Your task to perform on an android device: Turn off the flashlight Image 0: 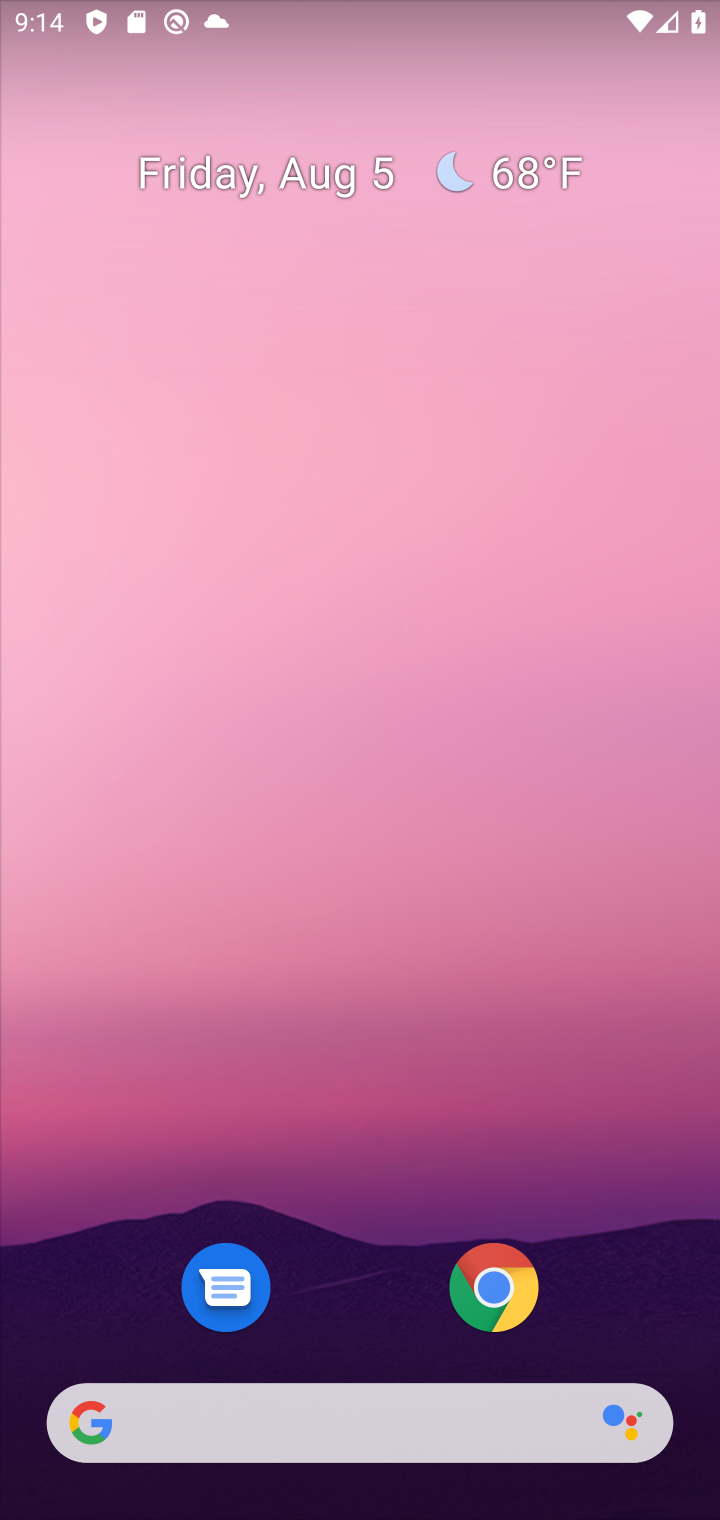
Step 0: drag from (379, 1291) to (413, 88)
Your task to perform on an android device: Turn off the flashlight Image 1: 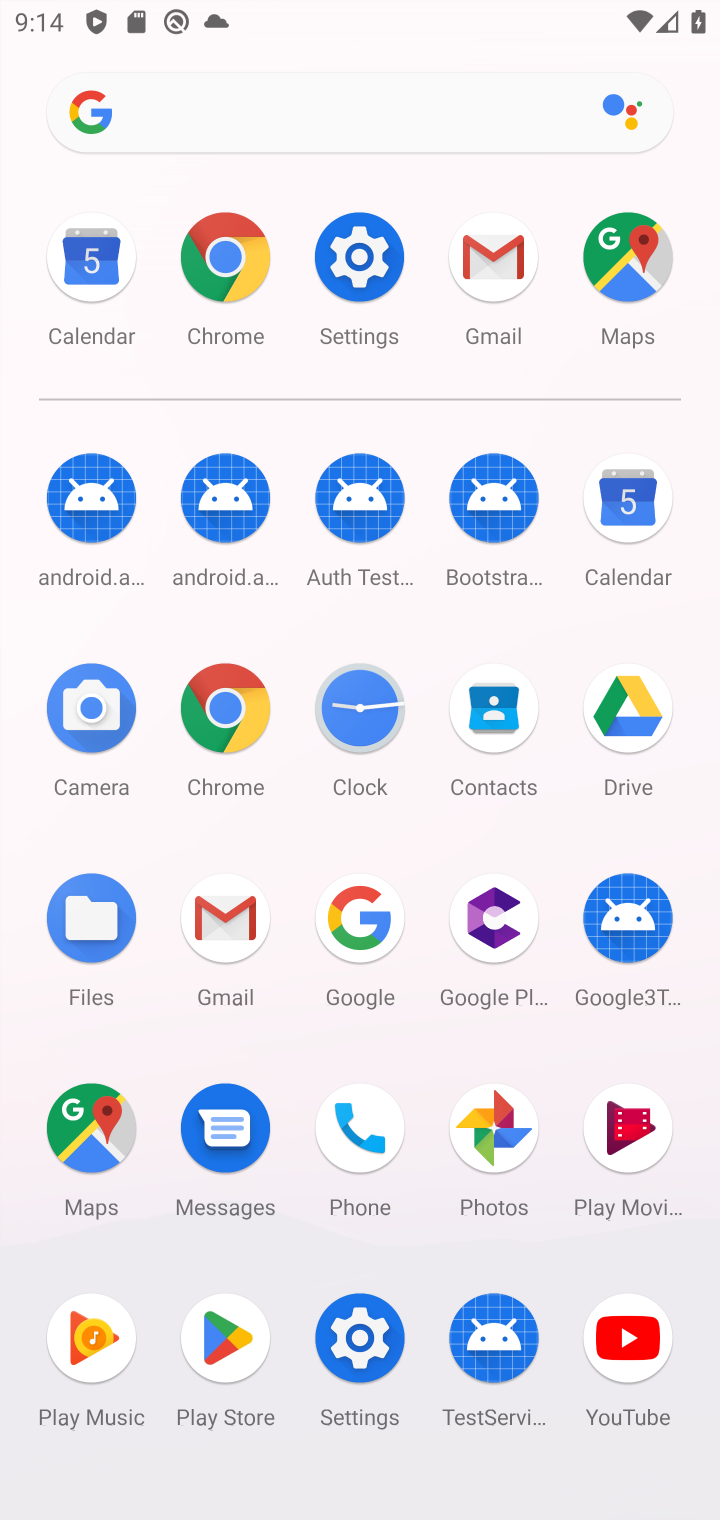
Step 1: click (351, 267)
Your task to perform on an android device: Turn off the flashlight Image 2: 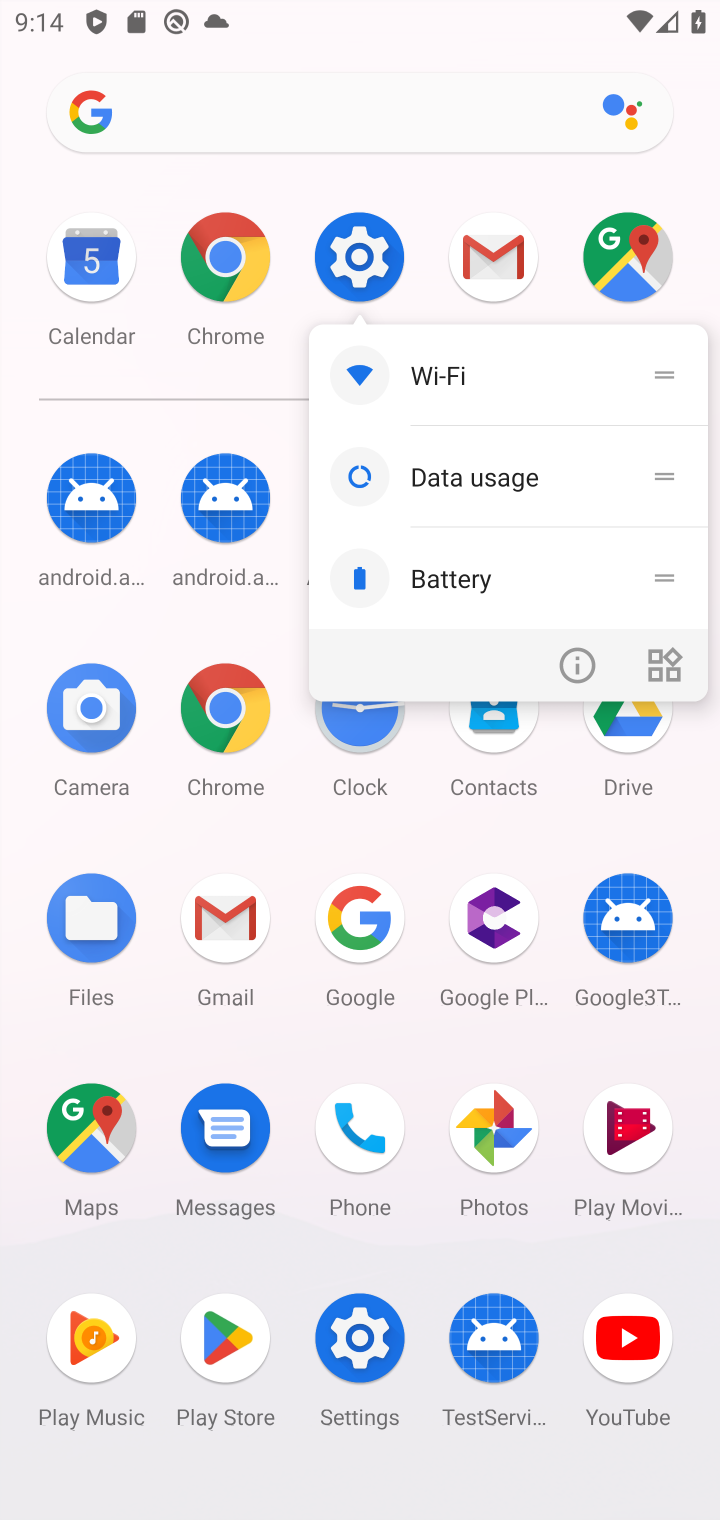
Step 2: click (351, 267)
Your task to perform on an android device: Turn off the flashlight Image 3: 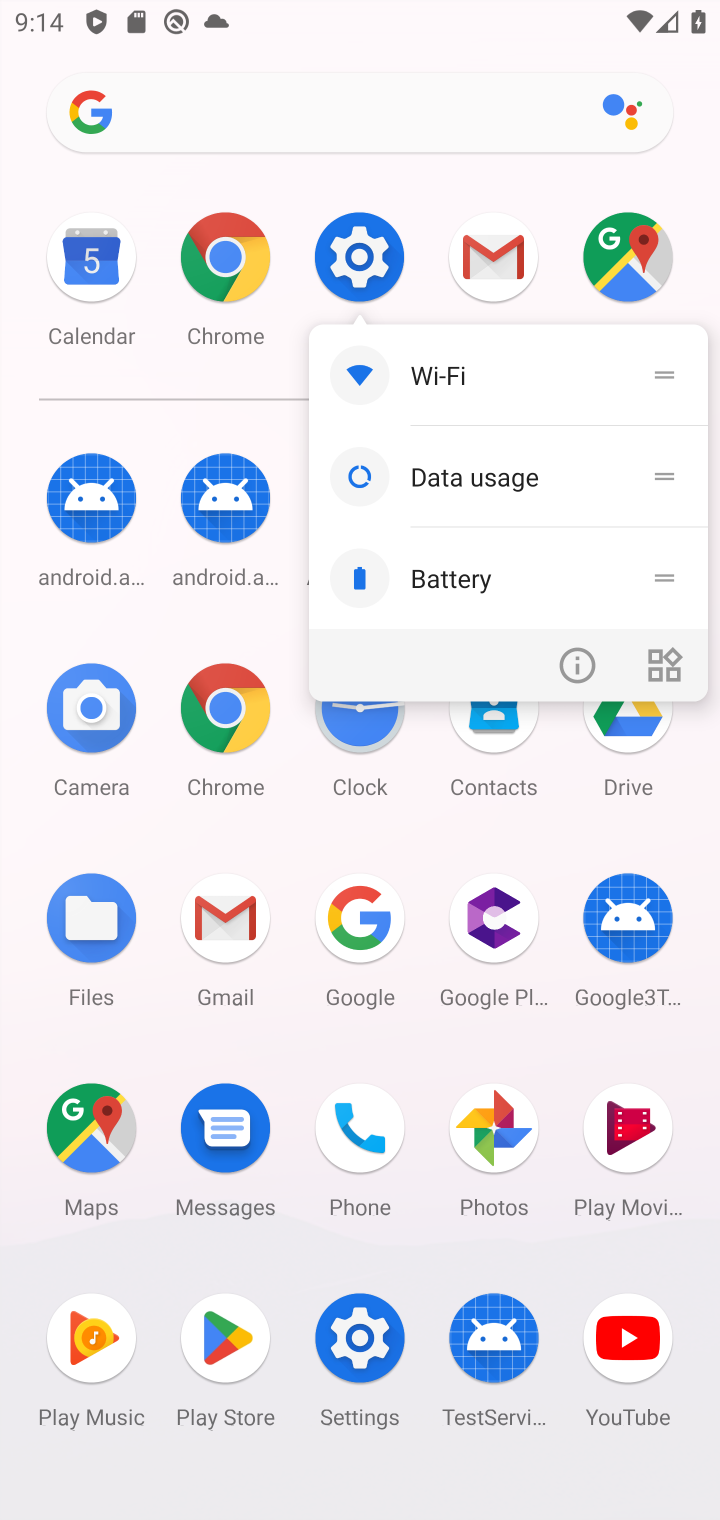
Step 3: click (351, 267)
Your task to perform on an android device: Turn off the flashlight Image 4: 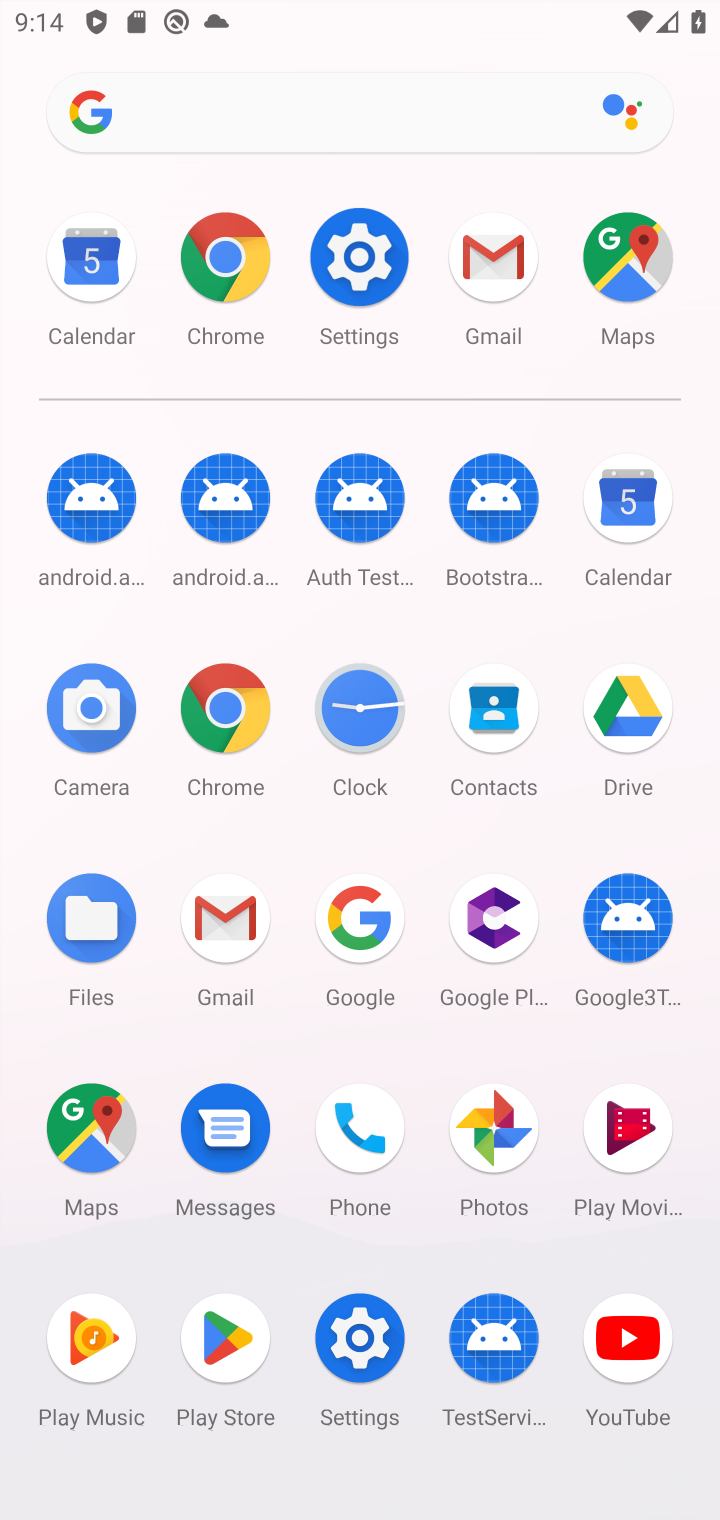
Step 4: click (346, 267)
Your task to perform on an android device: Turn off the flashlight Image 5: 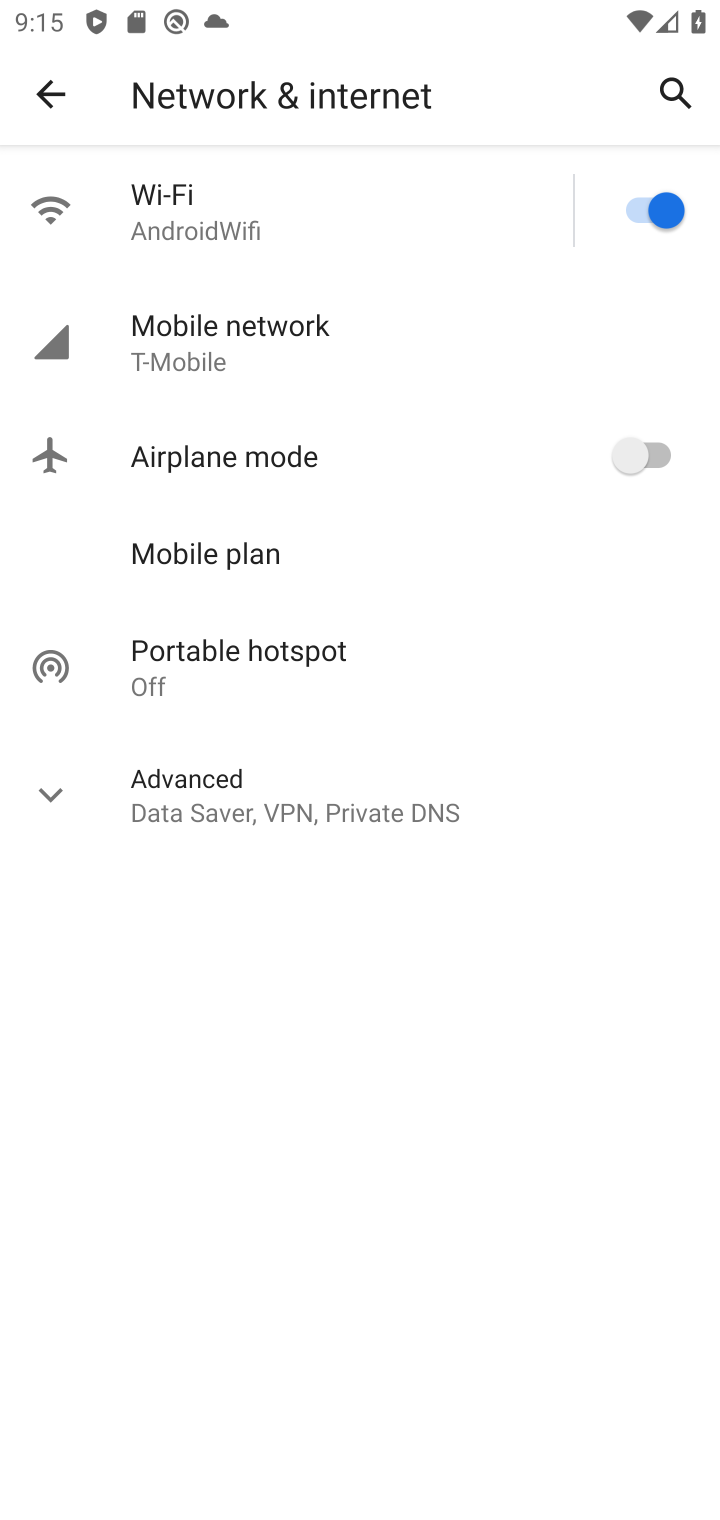
Step 5: click (59, 91)
Your task to perform on an android device: Turn off the flashlight Image 6: 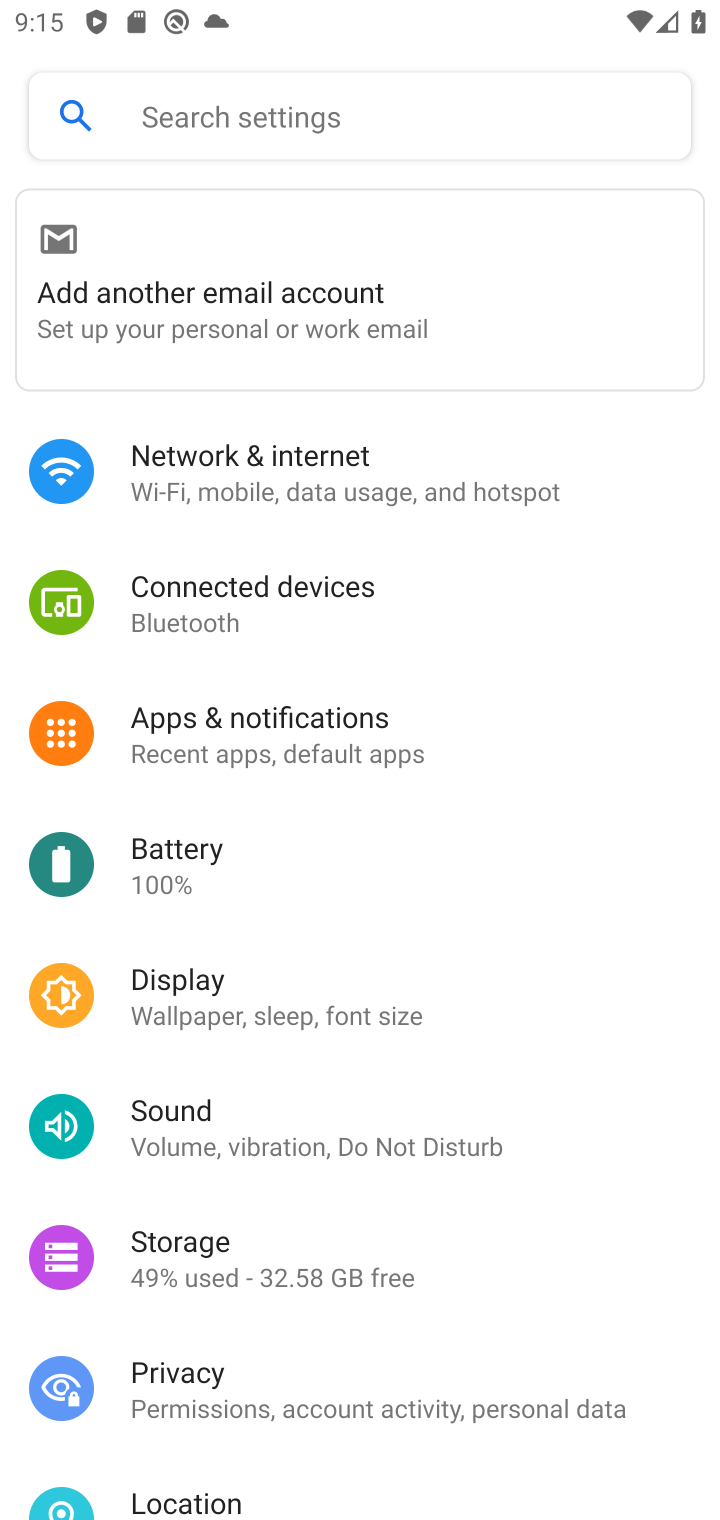
Step 6: task complete